Your task to perform on an android device: Open accessibility settings Image 0: 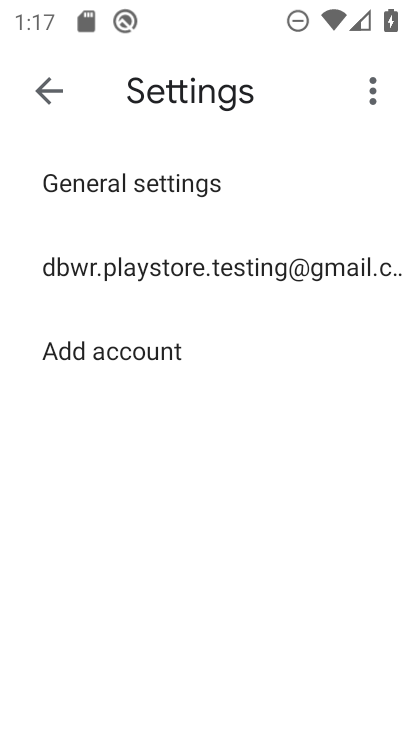
Step 0: press back button
Your task to perform on an android device: Open accessibility settings Image 1: 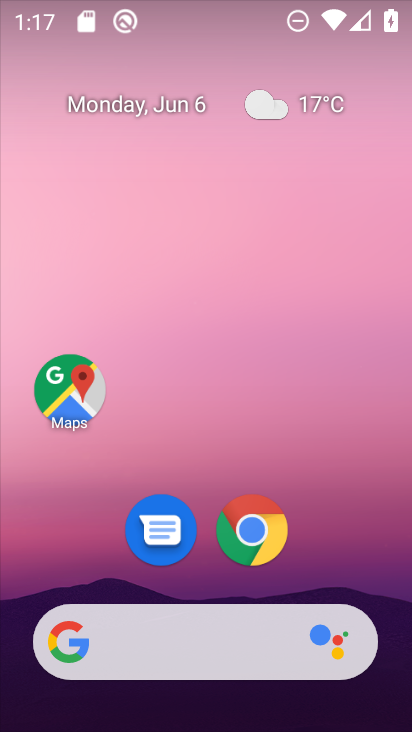
Step 1: drag from (339, 552) to (161, 45)
Your task to perform on an android device: Open accessibility settings Image 2: 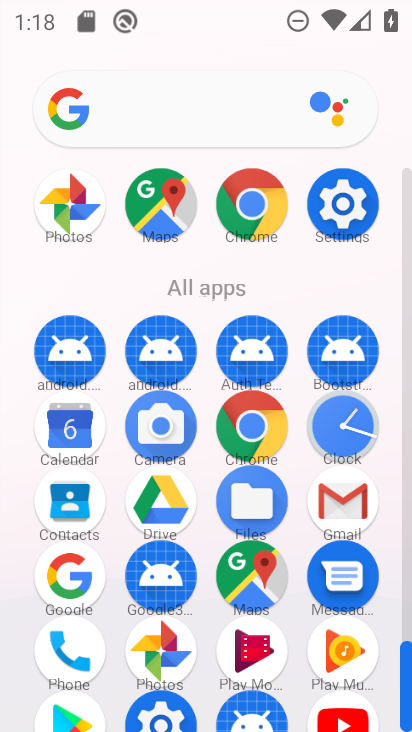
Step 2: click (343, 201)
Your task to perform on an android device: Open accessibility settings Image 3: 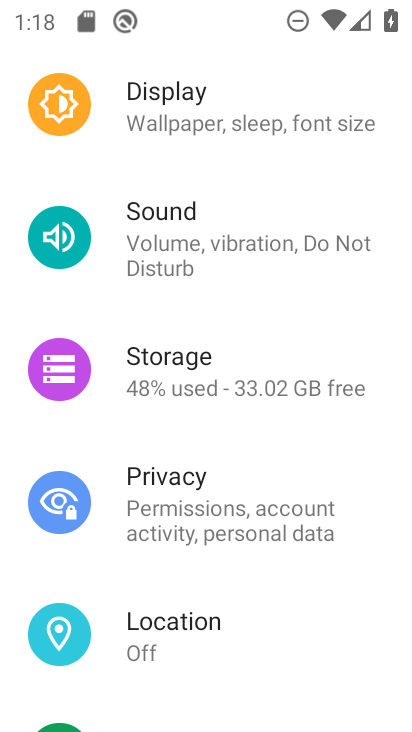
Step 3: drag from (186, 565) to (177, 358)
Your task to perform on an android device: Open accessibility settings Image 4: 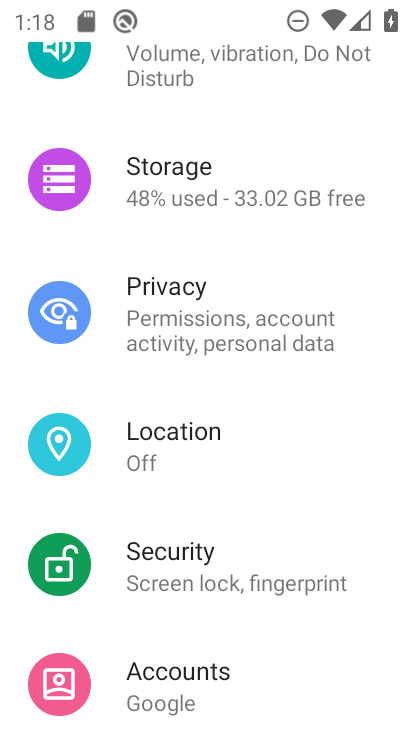
Step 4: drag from (218, 614) to (257, 389)
Your task to perform on an android device: Open accessibility settings Image 5: 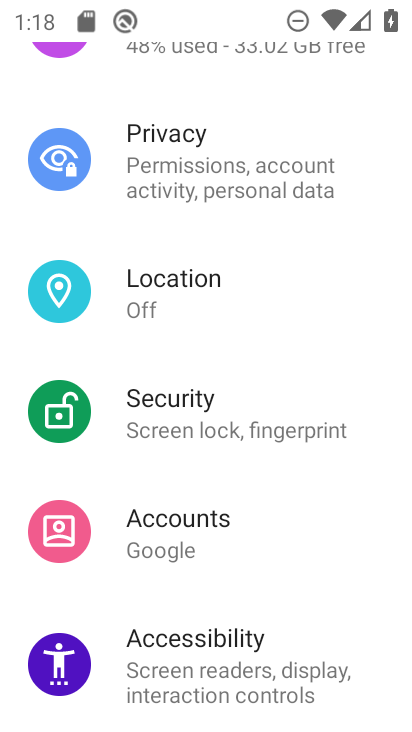
Step 5: drag from (226, 522) to (242, 426)
Your task to perform on an android device: Open accessibility settings Image 6: 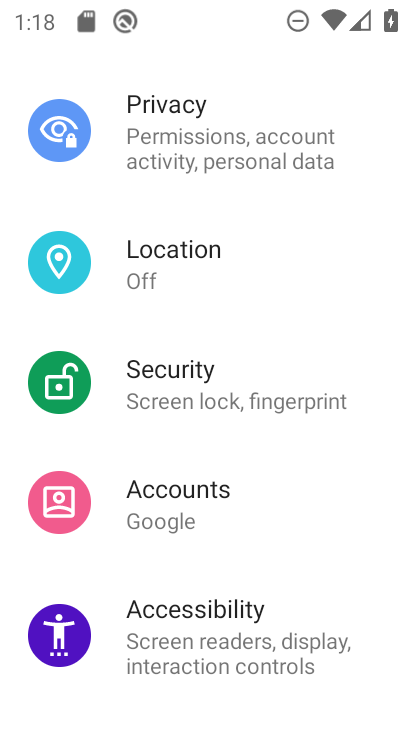
Step 6: click (228, 632)
Your task to perform on an android device: Open accessibility settings Image 7: 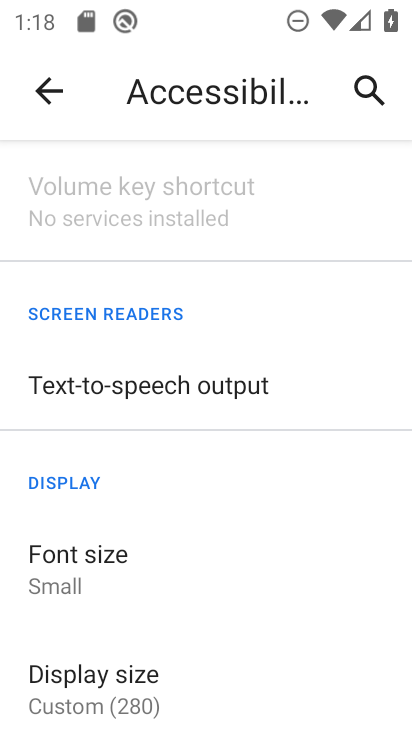
Step 7: task complete